Your task to perform on an android device: Find the nearest electronics store that's open Image 0: 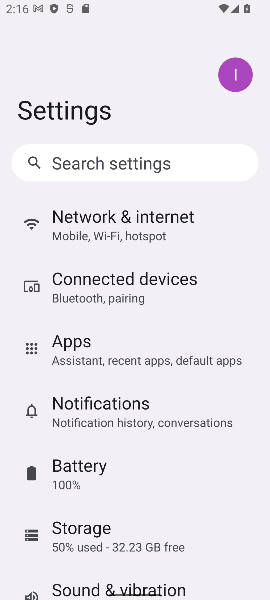
Step 0: press home button
Your task to perform on an android device: Find the nearest electronics store that's open Image 1: 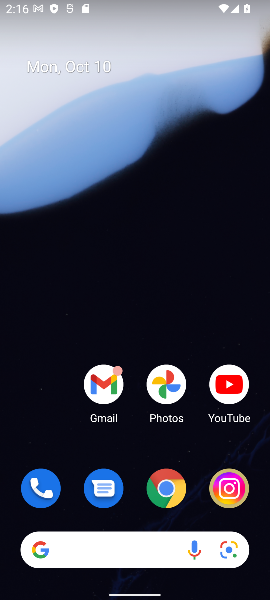
Step 1: click (134, 554)
Your task to perform on an android device: Find the nearest electronics store that's open Image 2: 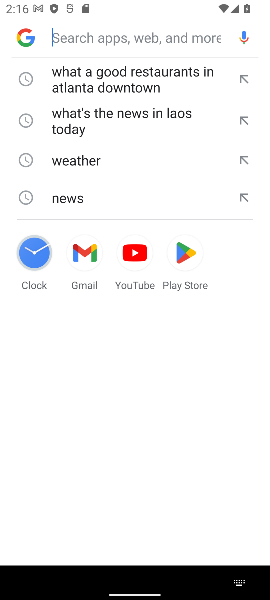
Step 2: click (126, 39)
Your task to perform on an android device: Find the nearest electronics store that's open Image 3: 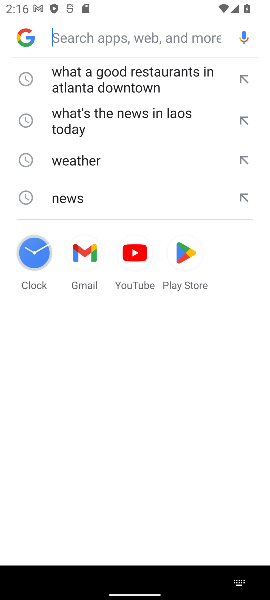
Step 3: type "nearest electronics store that's open"
Your task to perform on an android device: Find the nearest electronics store that's open Image 4: 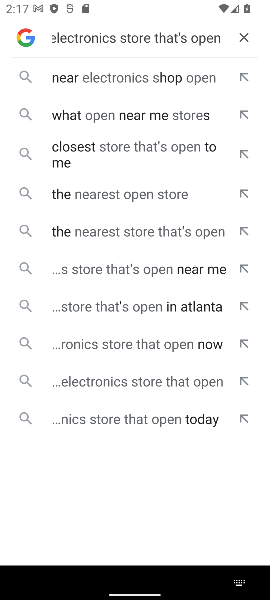
Step 4: click (115, 71)
Your task to perform on an android device: Find the nearest electronics store that's open Image 5: 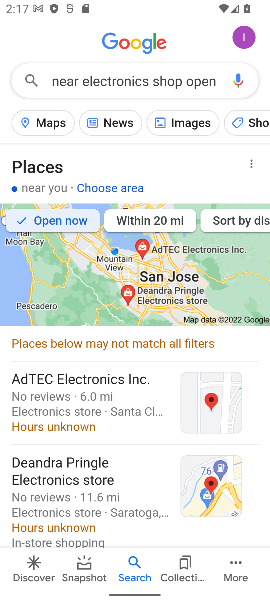
Step 5: task complete